Your task to perform on an android device: Check the weather Image 0: 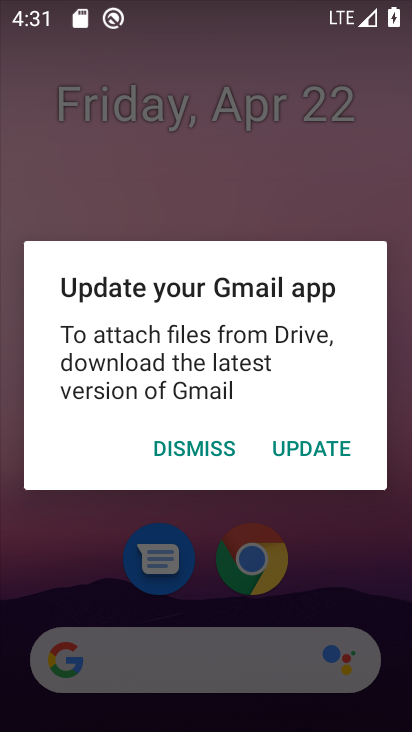
Step 0: press home button
Your task to perform on an android device: Check the weather Image 1: 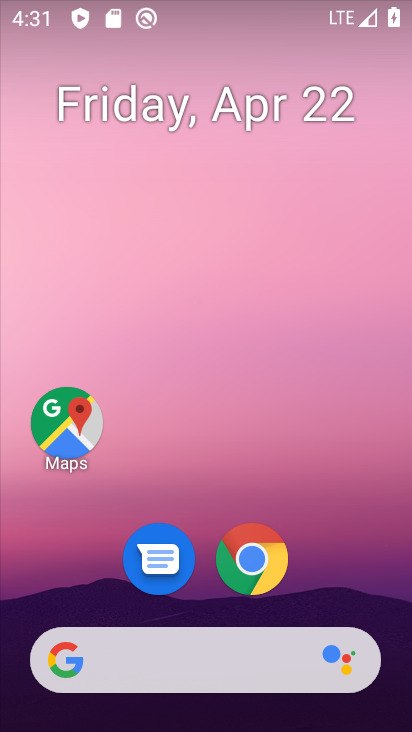
Step 1: drag from (308, 545) to (201, 27)
Your task to perform on an android device: Check the weather Image 2: 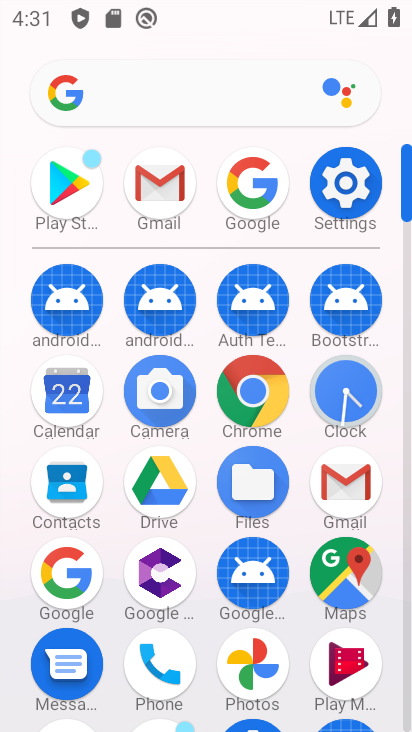
Step 2: click (64, 562)
Your task to perform on an android device: Check the weather Image 3: 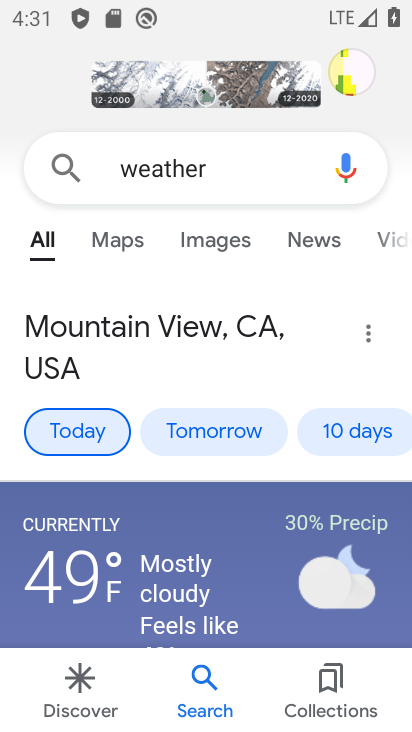
Step 3: task complete